Your task to perform on an android device: open app "Microsoft Outlook" (install if not already installed) Image 0: 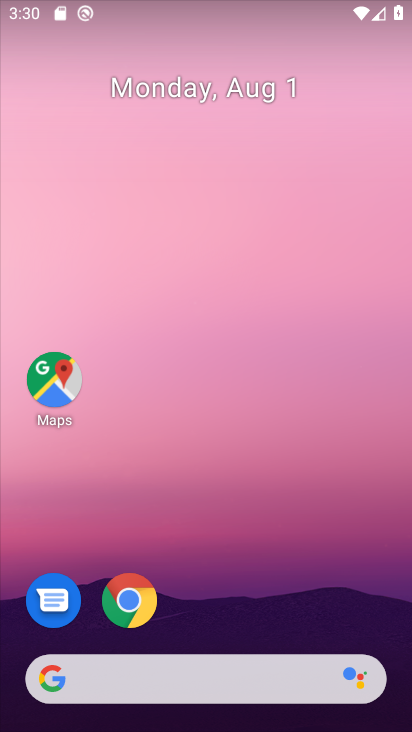
Step 0: drag from (327, 347) to (294, 17)
Your task to perform on an android device: open app "Microsoft Outlook" (install if not already installed) Image 1: 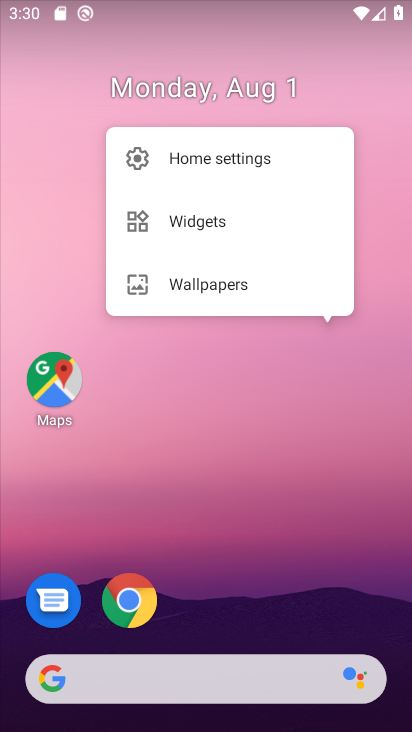
Step 1: click (315, 588)
Your task to perform on an android device: open app "Microsoft Outlook" (install if not already installed) Image 2: 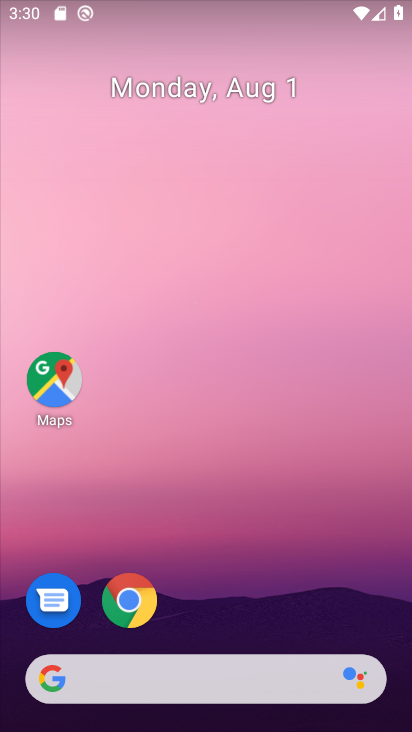
Step 2: drag from (347, 605) to (236, 26)
Your task to perform on an android device: open app "Microsoft Outlook" (install if not already installed) Image 3: 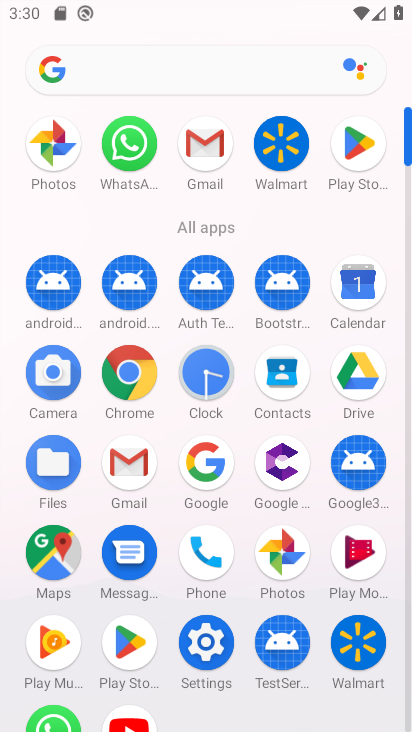
Step 3: click (365, 148)
Your task to perform on an android device: open app "Microsoft Outlook" (install if not already installed) Image 4: 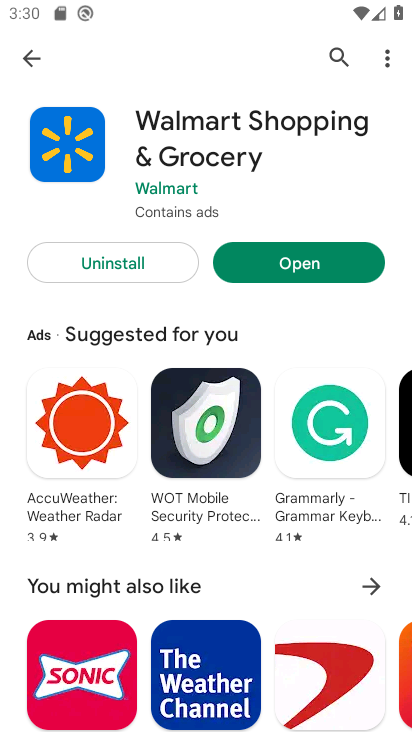
Step 4: click (339, 56)
Your task to perform on an android device: open app "Microsoft Outlook" (install if not already installed) Image 5: 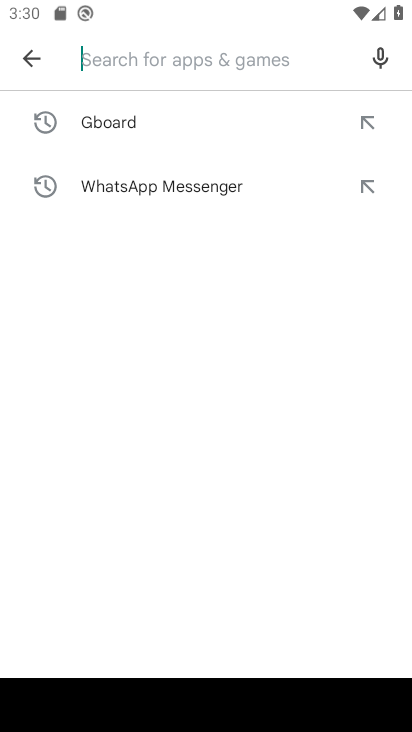
Step 5: type "Microsoft Outlook"
Your task to perform on an android device: open app "Microsoft Outlook" (install if not already installed) Image 6: 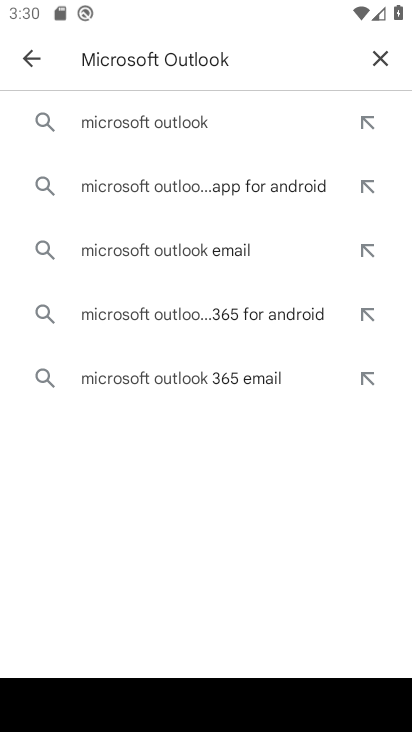
Step 6: press enter
Your task to perform on an android device: open app "Microsoft Outlook" (install if not already installed) Image 7: 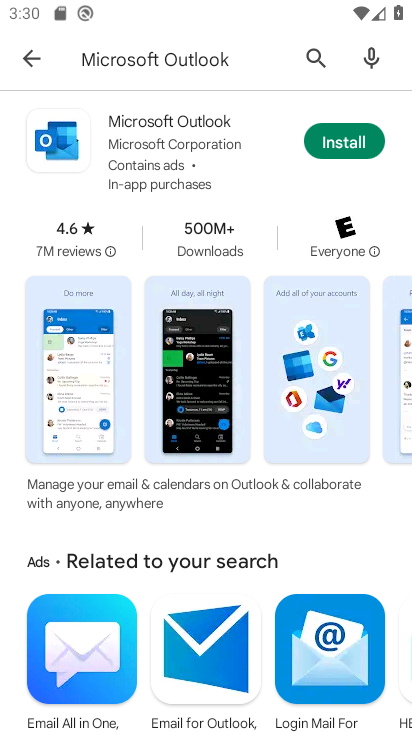
Step 7: click (367, 147)
Your task to perform on an android device: open app "Microsoft Outlook" (install if not already installed) Image 8: 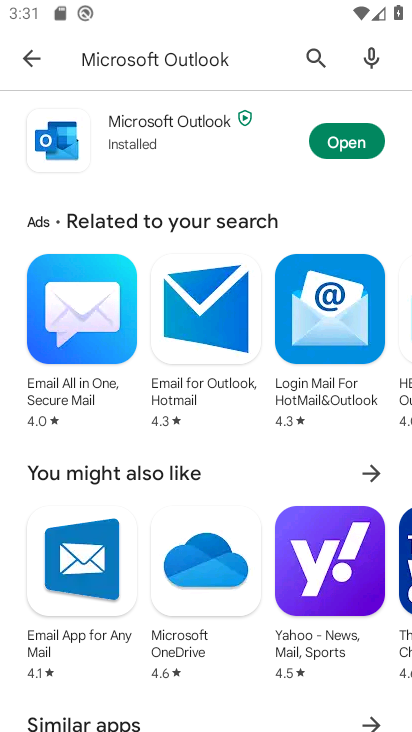
Step 8: click (376, 135)
Your task to perform on an android device: open app "Microsoft Outlook" (install if not already installed) Image 9: 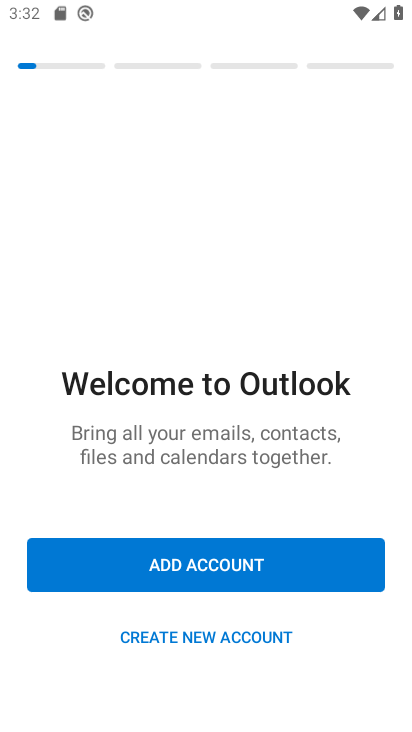
Step 9: task complete